Your task to perform on an android device: Open calendar and show me the first week of next month Image 0: 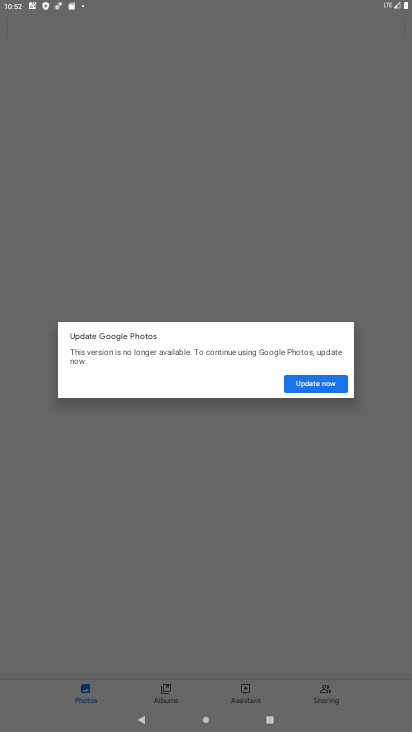
Step 0: press home button
Your task to perform on an android device: Open calendar and show me the first week of next month Image 1: 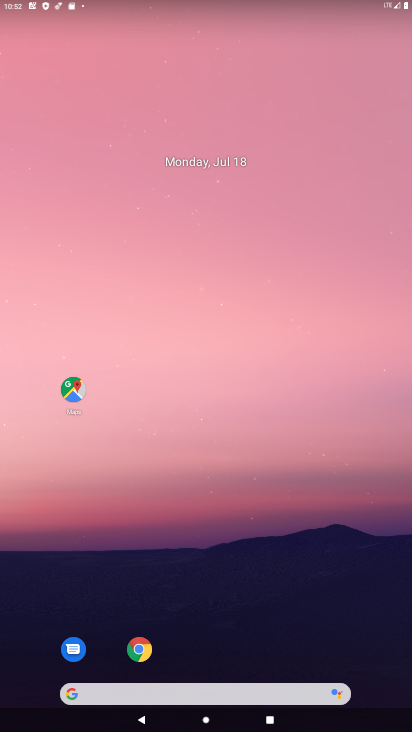
Step 1: drag from (248, 731) to (355, 147)
Your task to perform on an android device: Open calendar and show me the first week of next month Image 2: 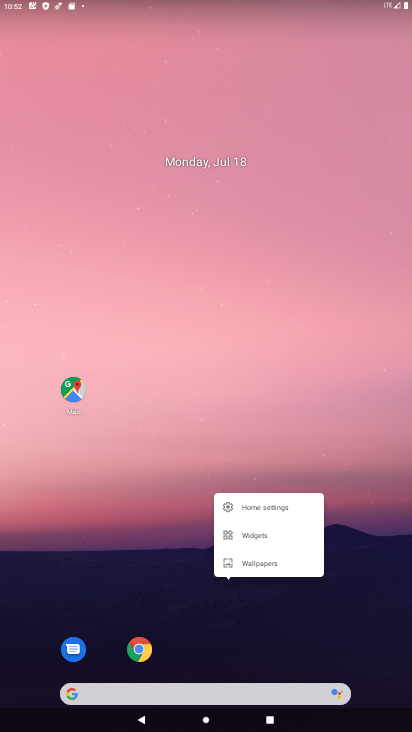
Step 2: drag from (169, 723) to (259, 68)
Your task to perform on an android device: Open calendar and show me the first week of next month Image 3: 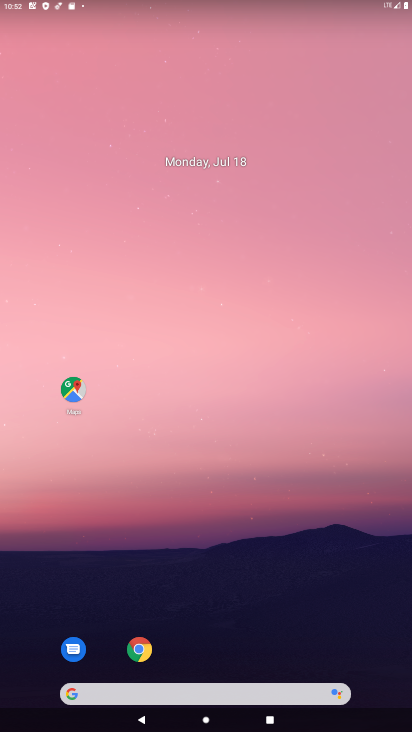
Step 3: drag from (85, 616) to (240, 39)
Your task to perform on an android device: Open calendar and show me the first week of next month Image 4: 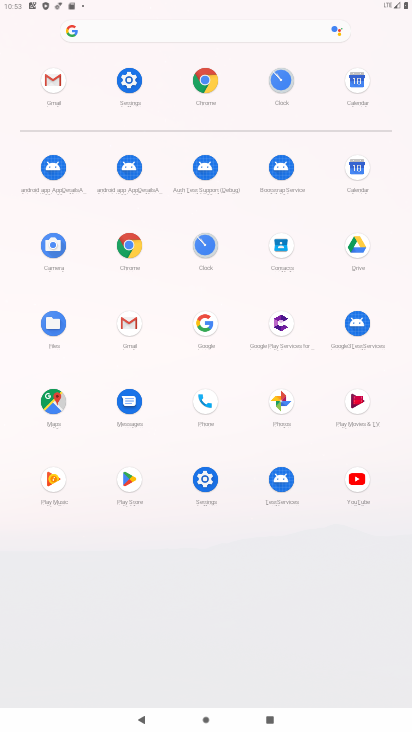
Step 4: click (360, 167)
Your task to perform on an android device: Open calendar and show me the first week of next month Image 5: 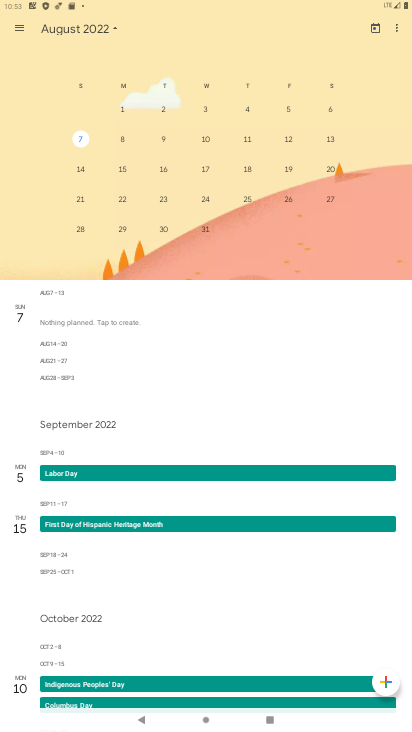
Step 5: click (120, 107)
Your task to perform on an android device: Open calendar and show me the first week of next month Image 6: 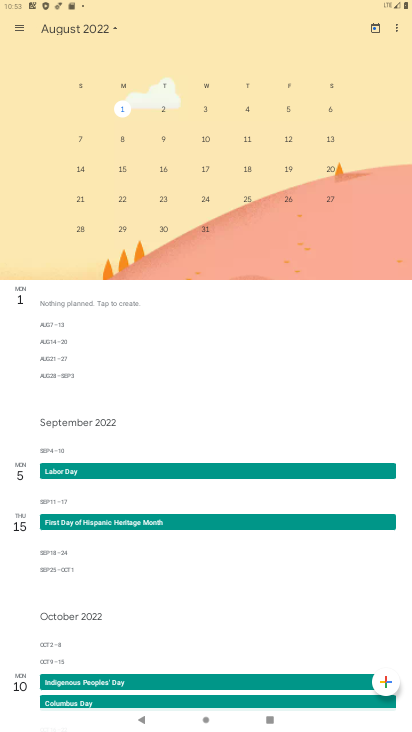
Step 6: task complete